Your task to perform on an android device: Go to eBay Image 0: 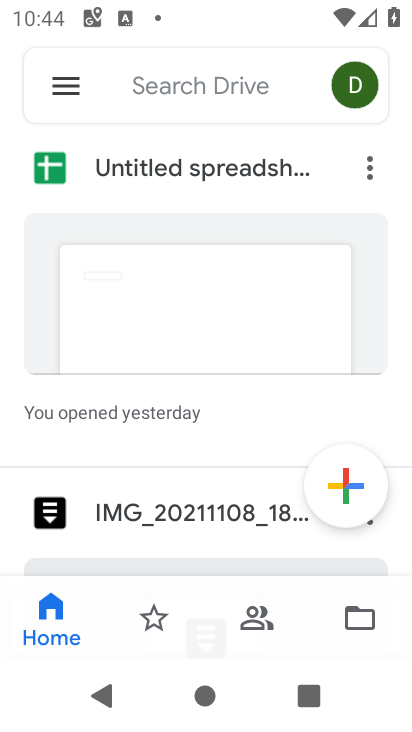
Step 0: press home button
Your task to perform on an android device: Go to eBay Image 1: 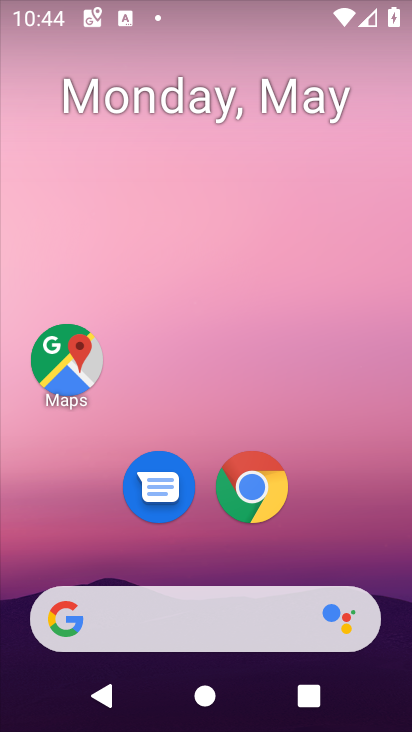
Step 1: click (273, 497)
Your task to perform on an android device: Go to eBay Image 2: 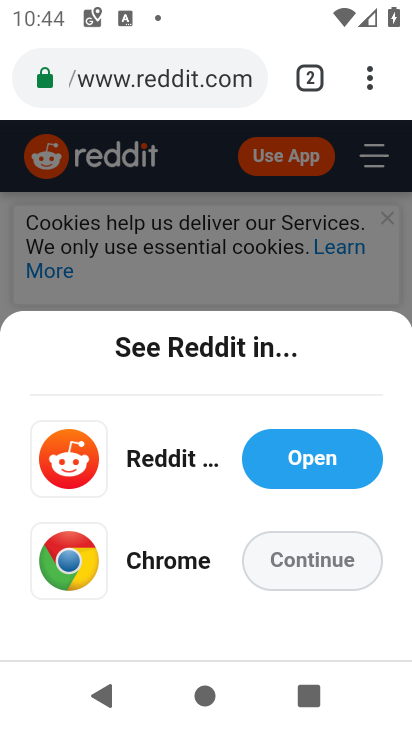
Step 2: click (310, 71)
Your task to perform on an android device: Go to eBay Image 3: 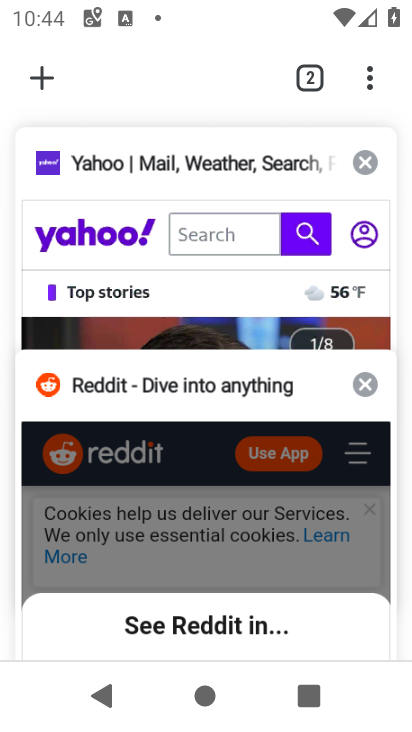
Step 3: click (55, 94)
Your task to perform on an android device: Go to eBay Image 4: 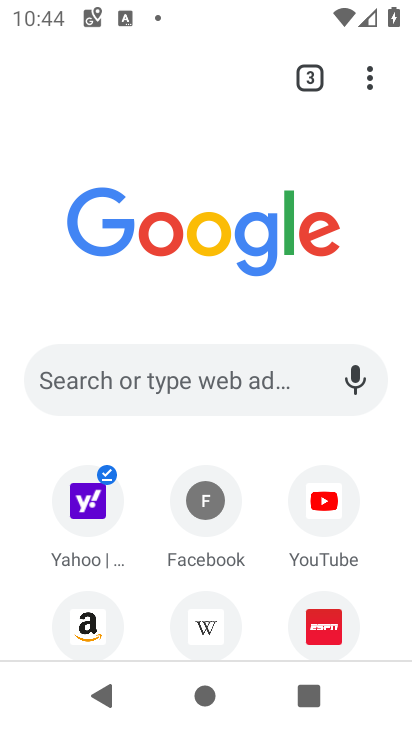
Step 4: click (192, 371)
Your task to perform on an android device: Go to eBay Image 5: 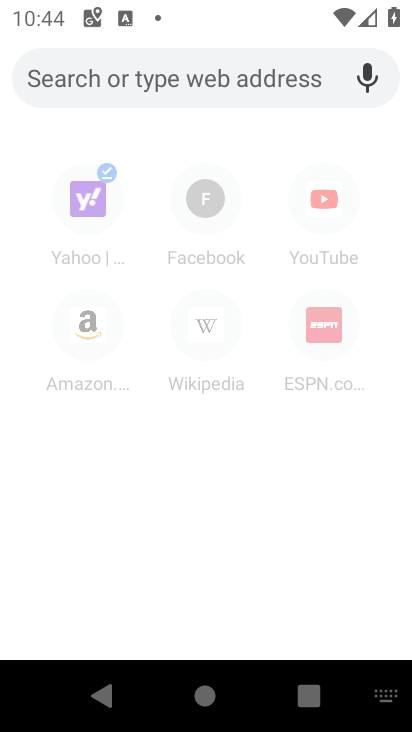
Step 5: type "ebay"
Your task to perform on an android device: Go to eBay Image 6: 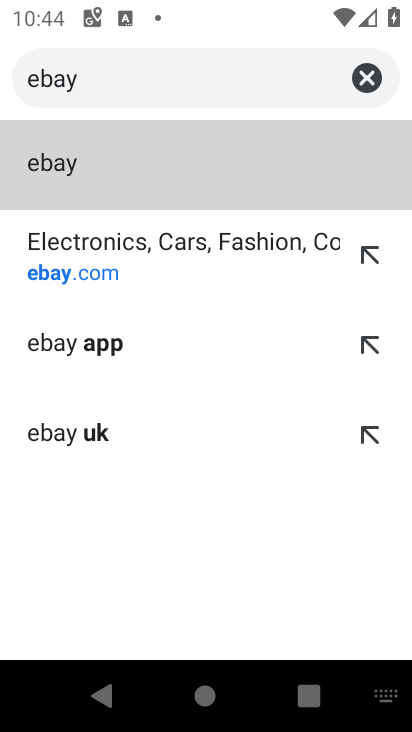
Step 6: click (121, 276)
Your task to perform on an android device: Go to eBay Image 7: 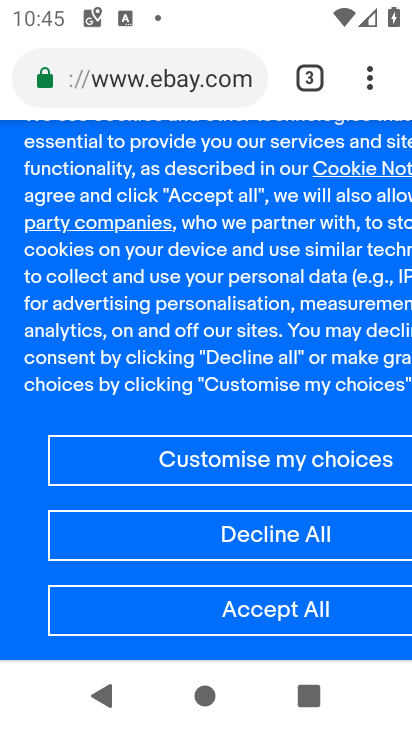
Step 7: task complete